Your task to perform on an android device: Go to settings Image 0: 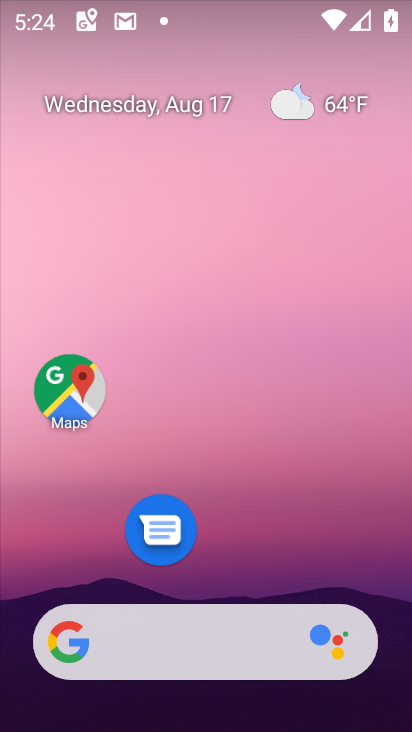
Step 0: drag from (205, 583) to (192, 74)
Your task to perform on an android device: Go to settings Image 1: 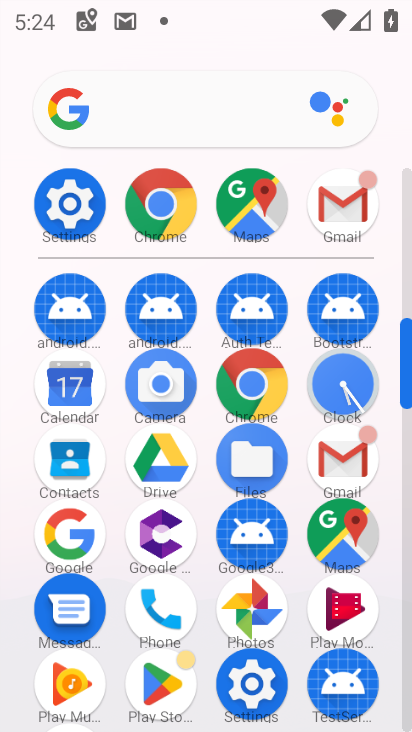
Step 1: click (66, 202)
Your task to perform on an android device: Go to settings Image 2: 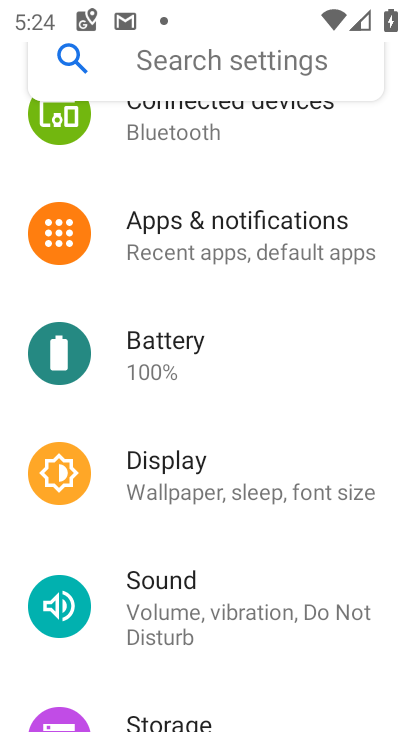
Step 2: task complete